Your task to perform on an android device: turn off picture-in-picture Image 0: 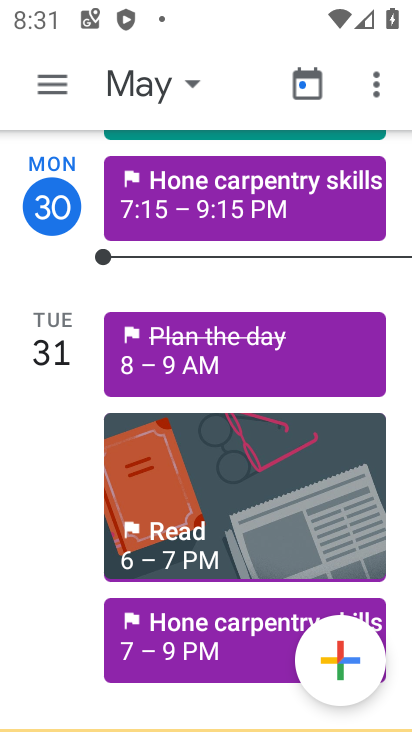
Step 0: press home button
Your task to perform on an android device: turn off picture-in-picture Image 1: 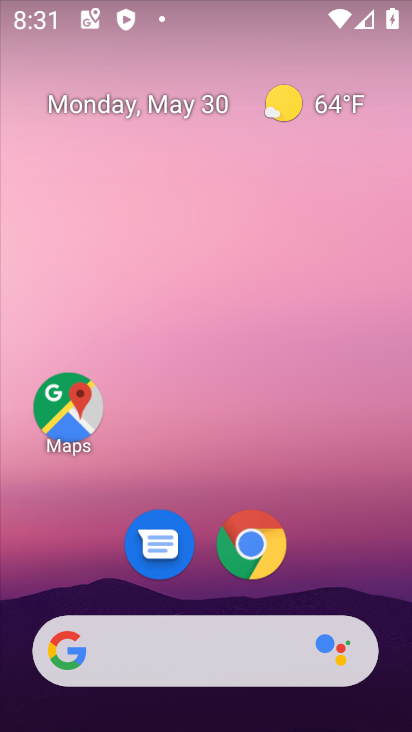
Step 1: drag from (235, 609) to (209, 7)
Your task to perform on an android device: turn off picture-in-picture Image 2: 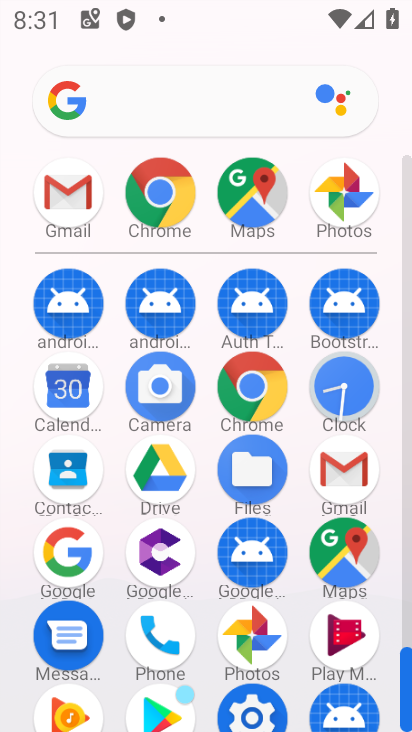
Step 2: click (236, 693)
Your task to perform on an android device: turn off picture-in-picture Image 3: 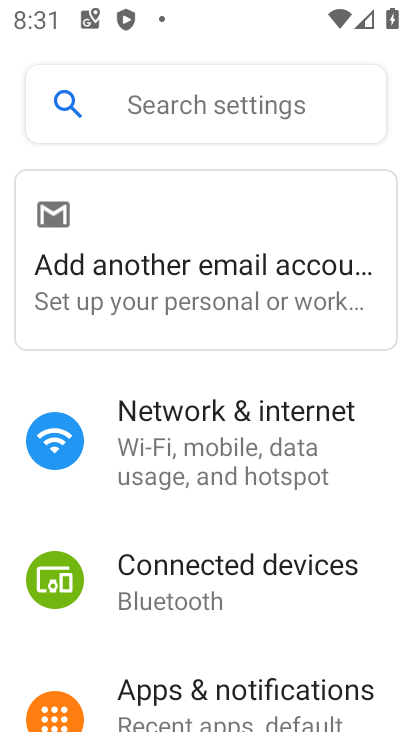
Step 3: drag from (195, 674) to (131, 374)
Your task to perform on an android device: turn off picture-in-picture Image 4: 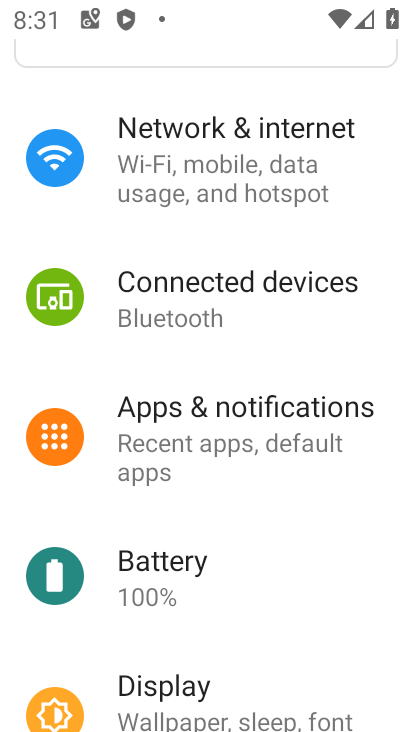
Step 4: click (183, 419)
Your task to perform on an android device: turn off picture-in-picture Image 5: 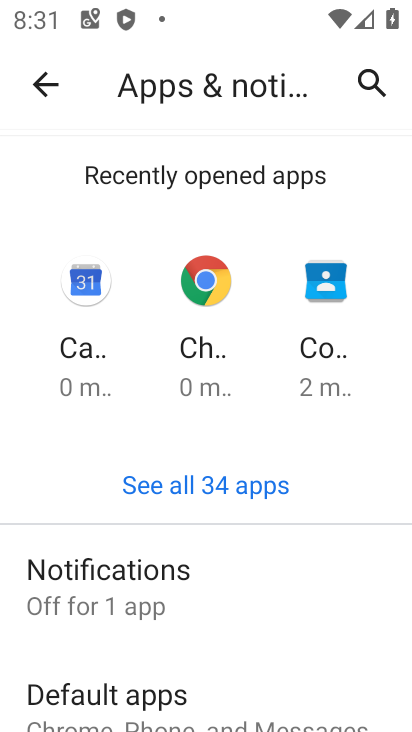
Step 5: click (137, 577)
Your task to perform on an android device: turn off picture-in-picture Image 6: 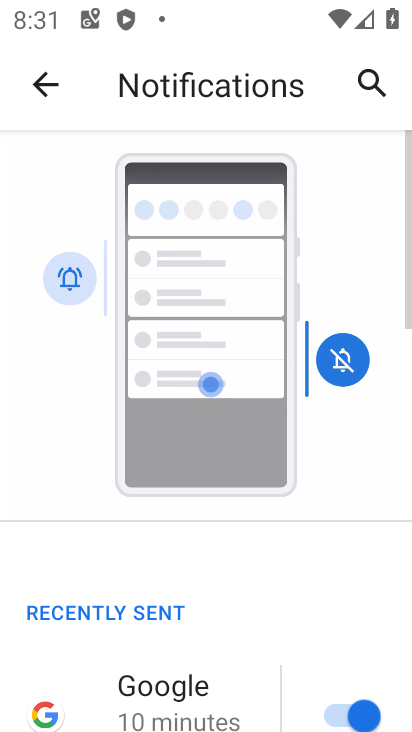
Step 6: drag from (219, 644) to (173, 103)
Your task to perform on an android device: turn off picture-in-picture Image 7: 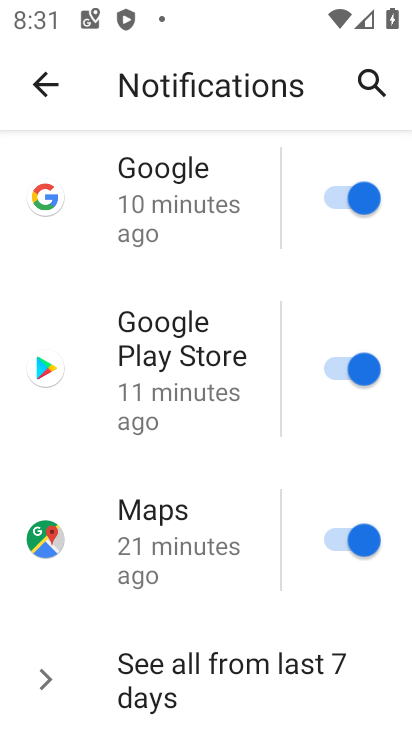
Step 7: drag from (259, 629) to (198, 29)
Your task to perform on an android device: turn off picture-in-picture Image 8: 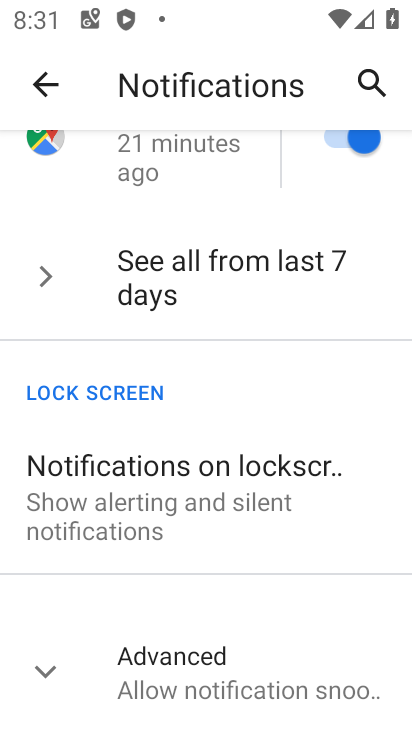
Step 8: click (224, 668)
Your task to perform on an android device: turn off picture-in-picture Image 9: 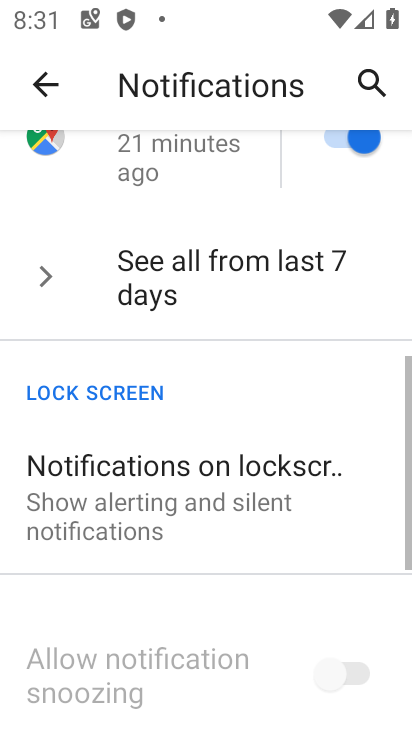
Step 9: task complete